Your task to perform on an android device: change the clock style Image 0: 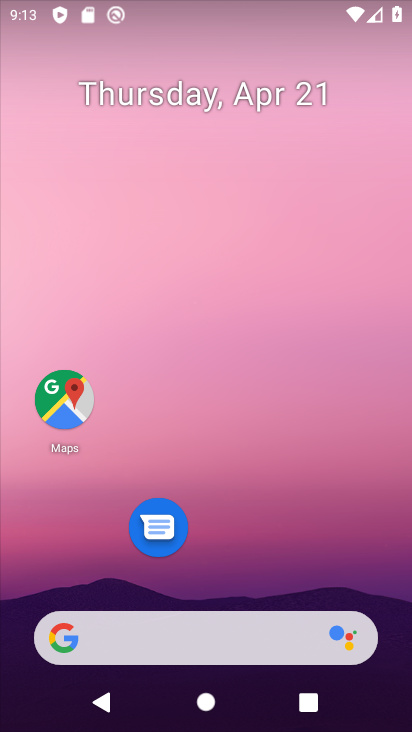
Step 0: drag from (210, 596) to (229, 50)
Your task to perform on an android device: change the clock style Image 1: 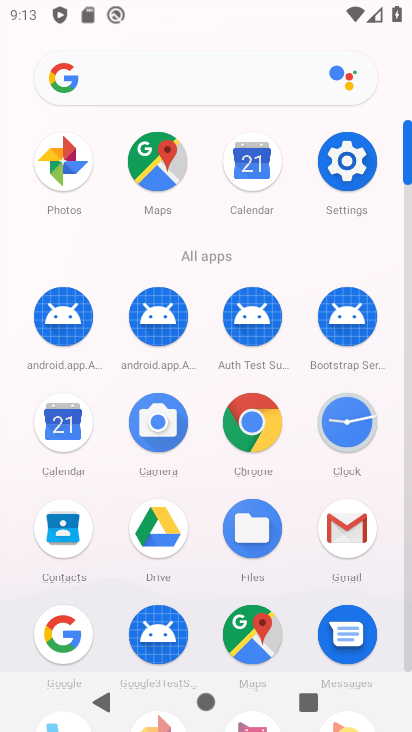
Step 1: click (343, 415)
Your task to perform on an android device: change the clock style Image 2: 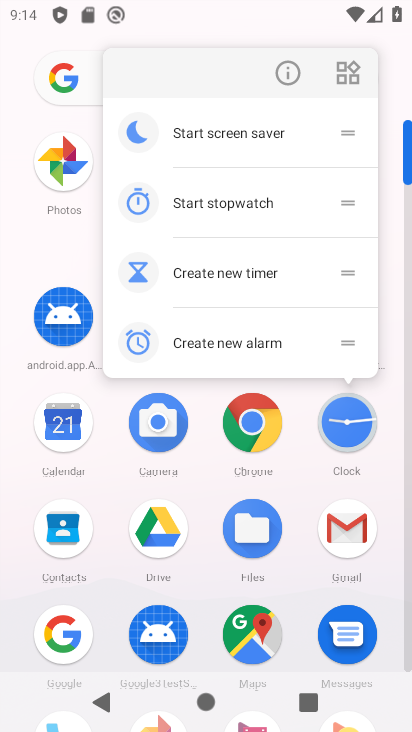
Step 2: click (347, 407)
Your task to perform on an android device: change the clock style Image 3: 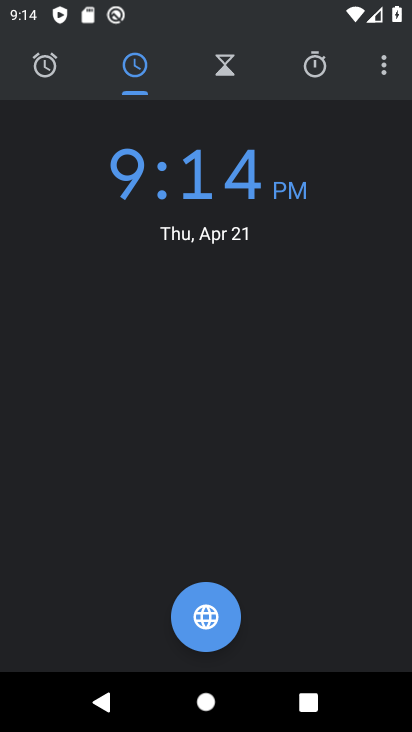
Step 3: click (382, 67)
Your task to perform on an android device: change the clock style Image 4: 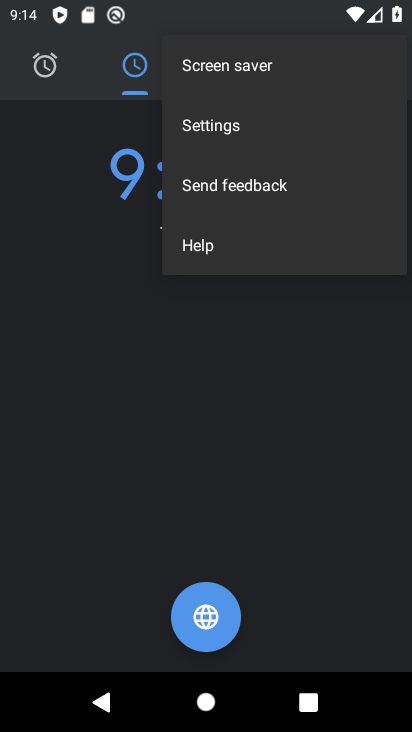
Step 4: click (241, 124)
Your task to perform on an android device: change the clock style Image 5: 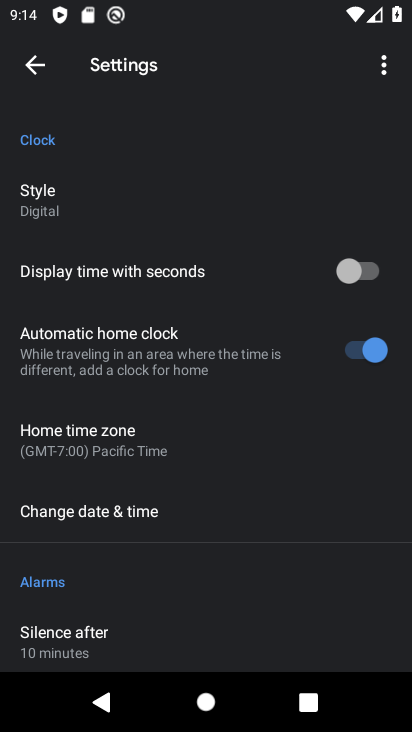
Step 5: click (87, 206)
Your task to perform on an android device: change the clock style Image 6: 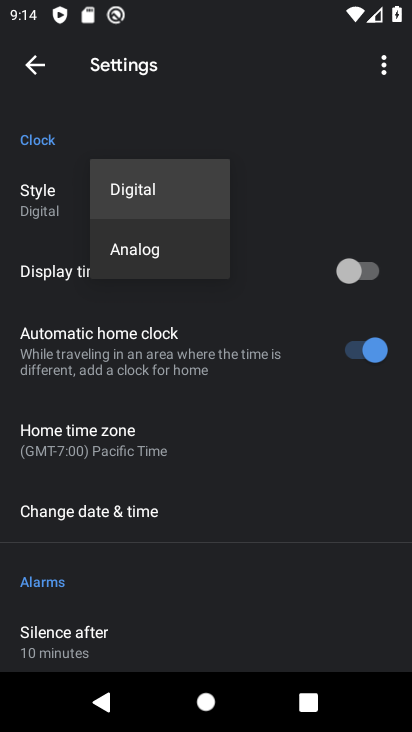
Step 6: click (117, 238)
Your task to perform on an android device: change the clock style Image 7: 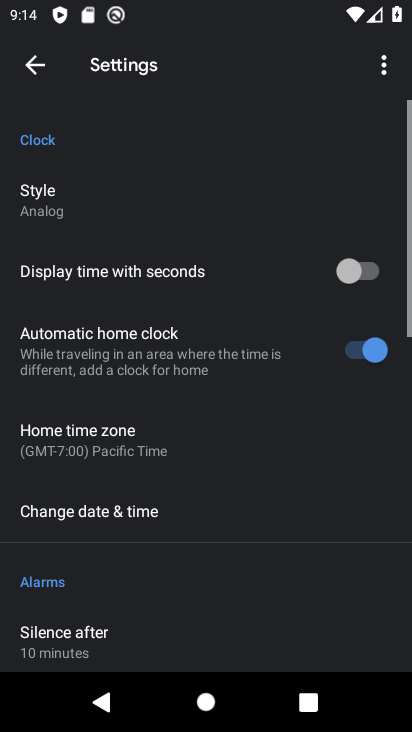
Step 7: task complete